Your task to perform on an android device: change your default location settings in chrome Image 0: 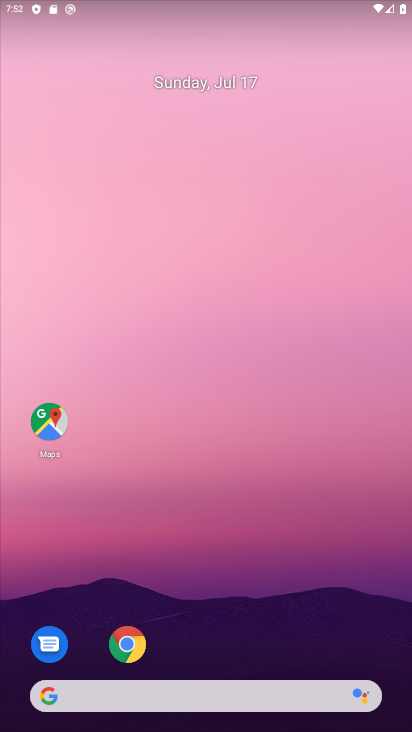
Step 0: click (129, 645)
Your task to perform on an android device: change your default location settings in chrome Image 1: 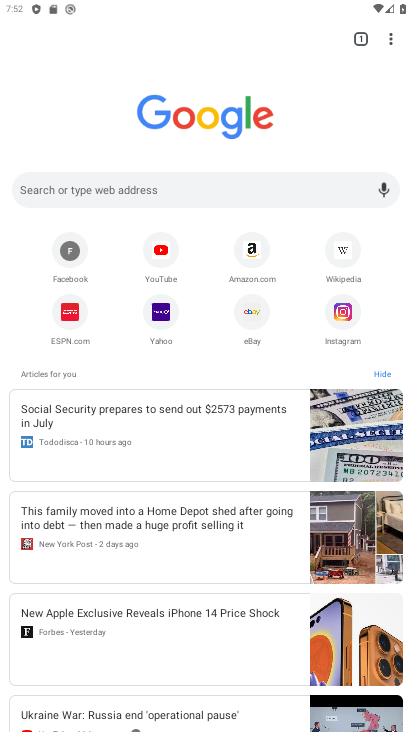
Step 1: click (389, 40)
Your task to perform on an android device: change your default location settings in chrome Image 2: 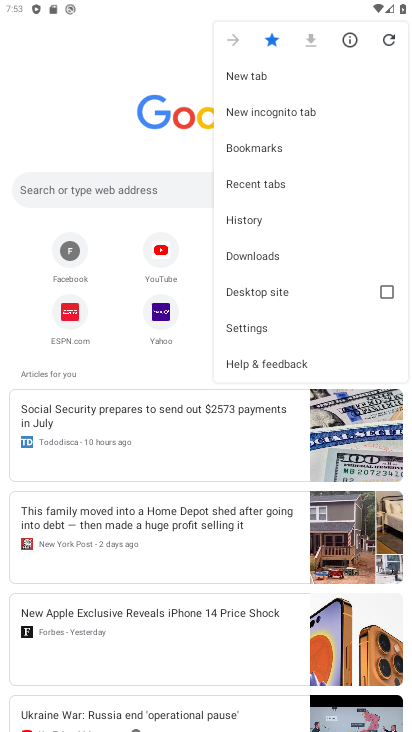
Step 2: click (246, 329)
Your task to perform on an android device: change your default location settings in chrome Image 3: 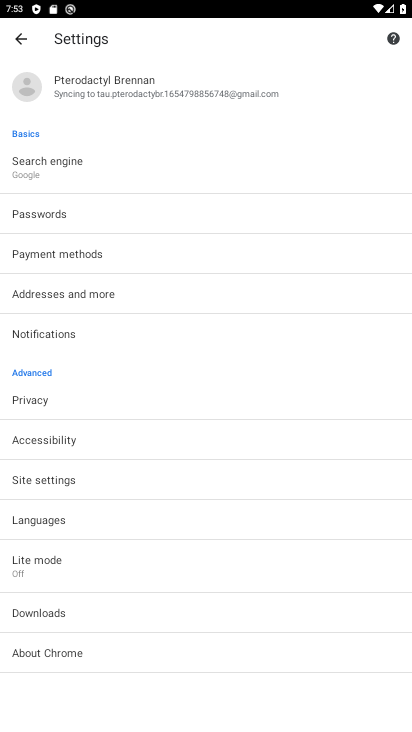
Step 3: click (58, 479)
Your task to perform on an android device: change your default location settings in chrome Image 4: 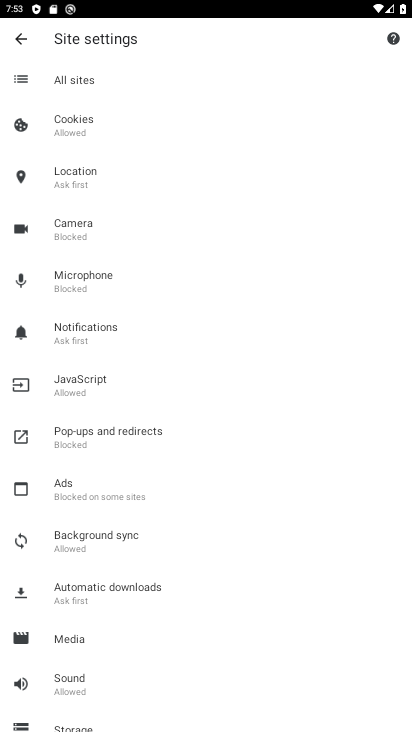
Step 4: click (75, 167)
Your task to perform on an android device: change your default location settings in chrome Image 5: 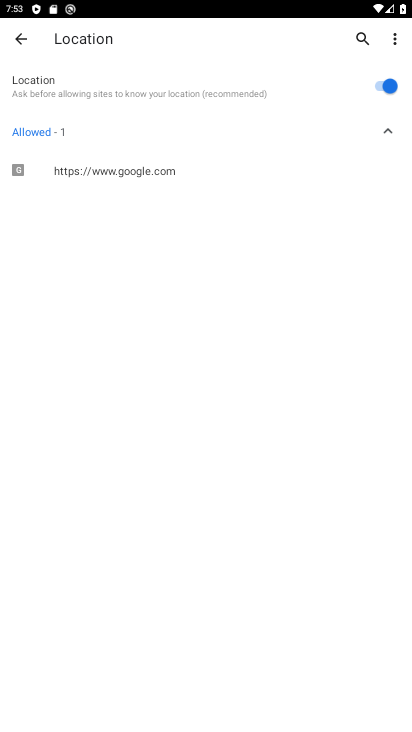
Step 5: click (391, 75)
Your task to perform on an android device: change your default location settings in chrome Image 6: 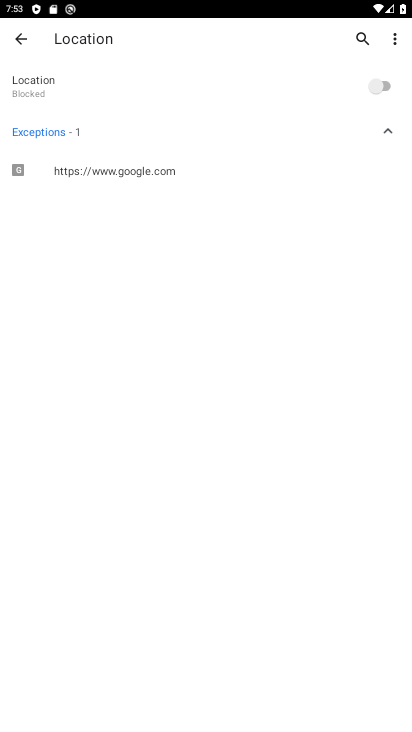
Step 6: task complete